Your task to perform on an android device: manage bookmarks in the chrome app Image 0: 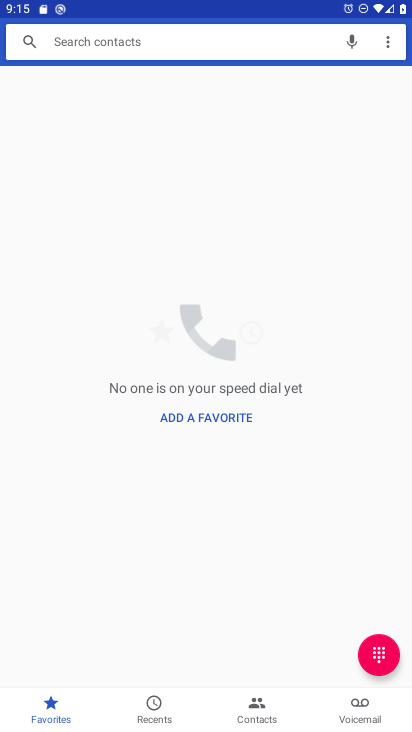
Step 0: press home button
Your task to perform on an android device: manage bookmarks in the chrome app Image 1: 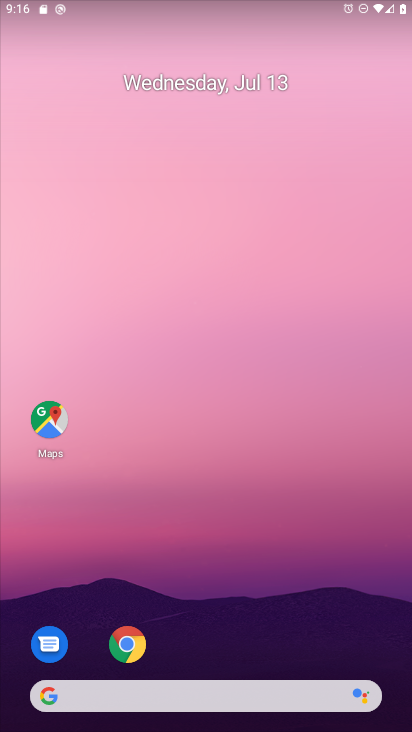
Step 1: click (127, 650)
Your task to perform on an android device: manage bookmarks in the chrome app Image 2: 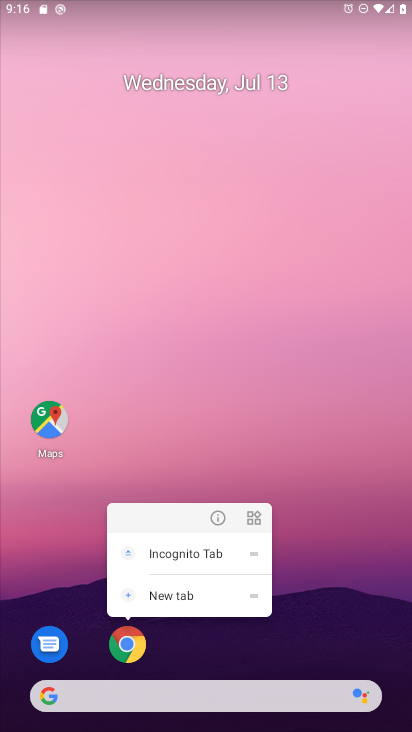
Step 2: click (125, 641)
Your task to perform on an android device: manage bookmarks in the chrome app Image 3: 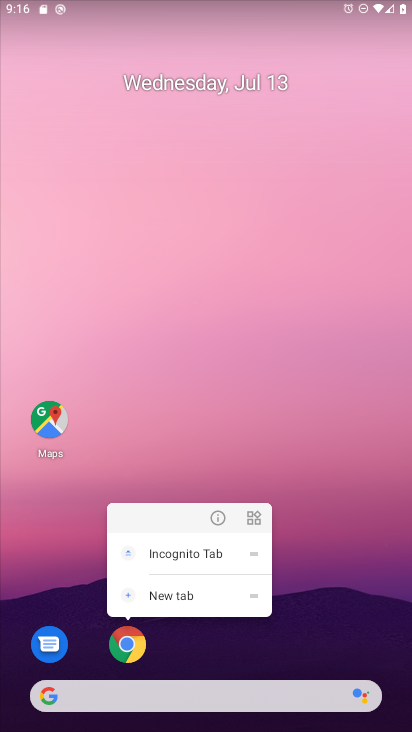
Step 3: click (129, 649)
Your task to perform on an android device: manage bookmarks in the chrome app Image 4: 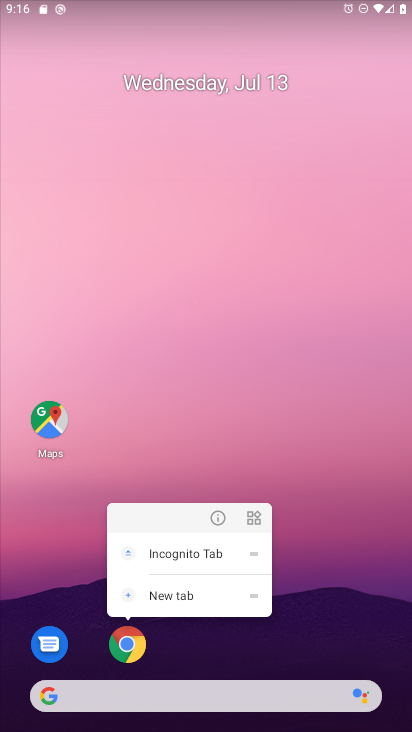
Step 4: click (129, 649)
Your task to perform on an android device: manage bookmarks in the chrome app Image 5: 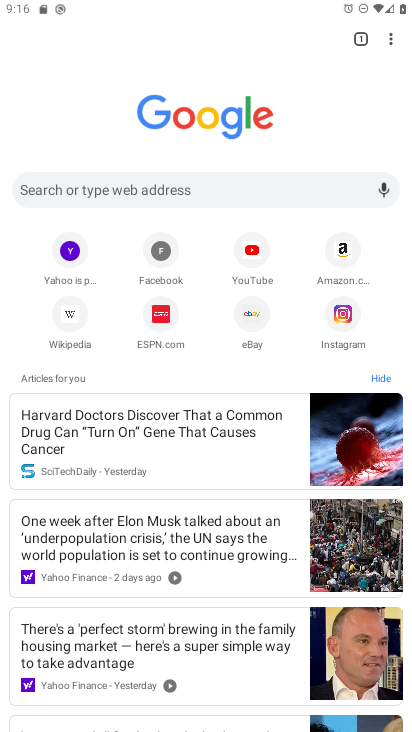
Step 5: drag from (392, 46) to (278, 154)
Your task to perform on an android device: manage bookmarks in the chrome app Image 6: 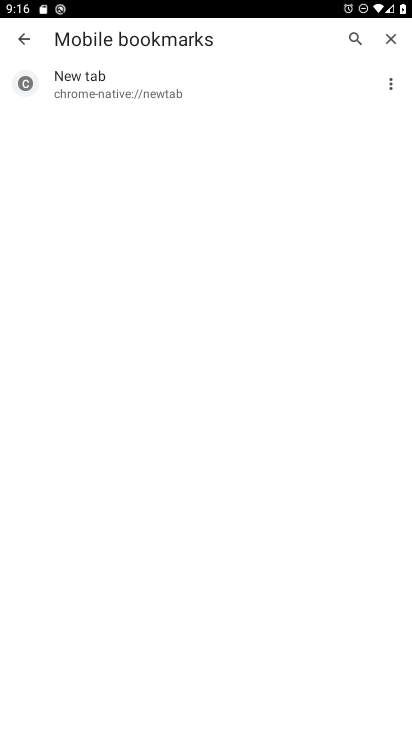
Step 6: click (385, 88)
Your task to perform on an android device: manage bookmarks in the chrome app Image 7: 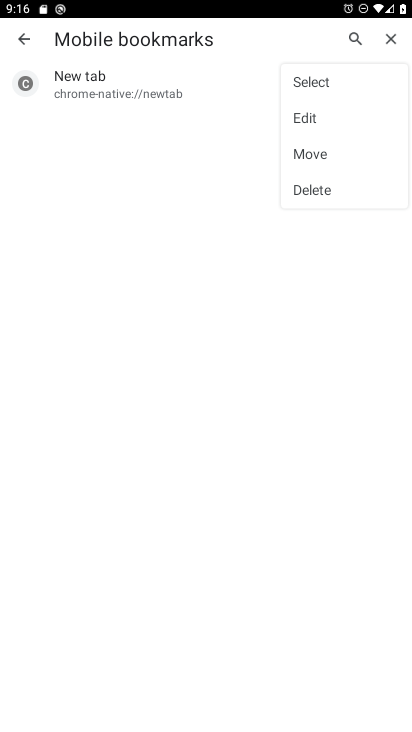
Step 7: click (386, 87)
Your task to perform on an android device: manage bookmarks in the chrome app Image 8: 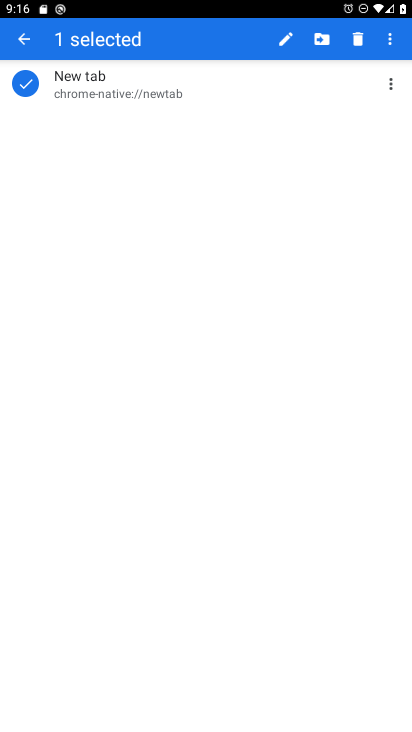
Step 8: click (390, 82)
Your task to perform on an android device: manage bookmarks in the chrome app Image 9: 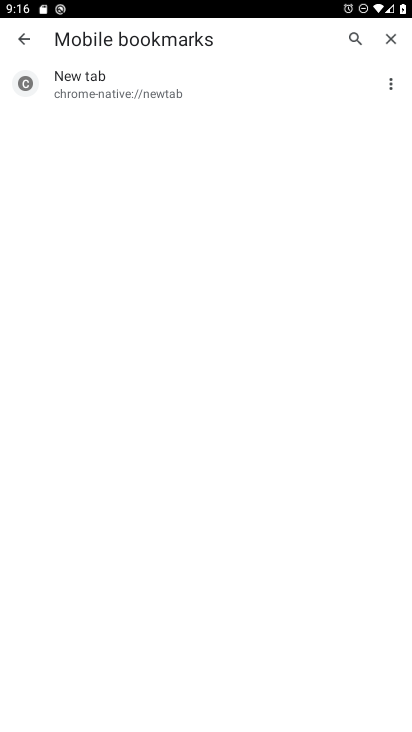
Step 9: task complete